Your task to perform on an android device: change timer sound Image 0: 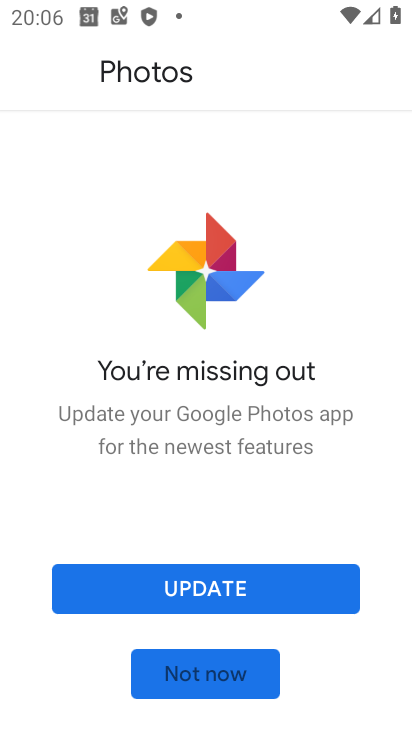
Step 0: press home button
Your task to perform on an android device: change timer sound Image 1: 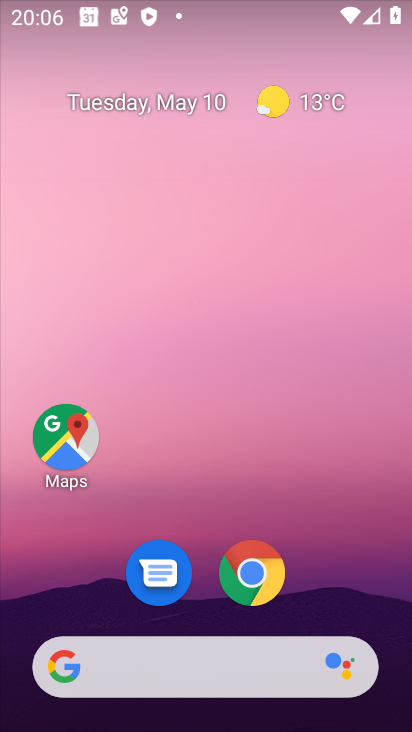
Step 1: drag from (352, 628) to (300, 2)
Your task to perform on an android device: change timer sound Image 2: 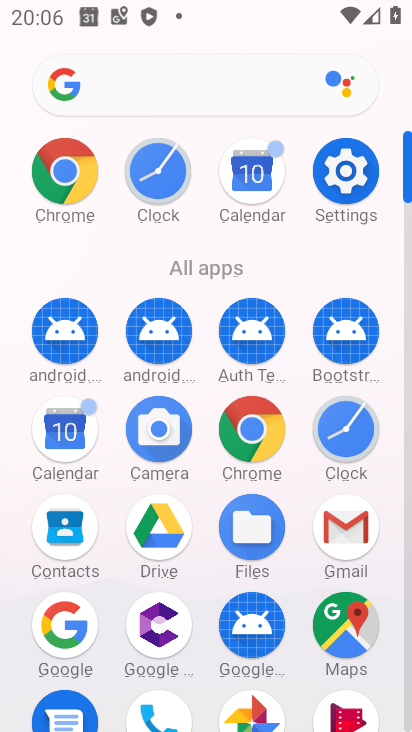
Step 2: click (149, 185)
Your task to perform on an android device: change timer sound Image 3: 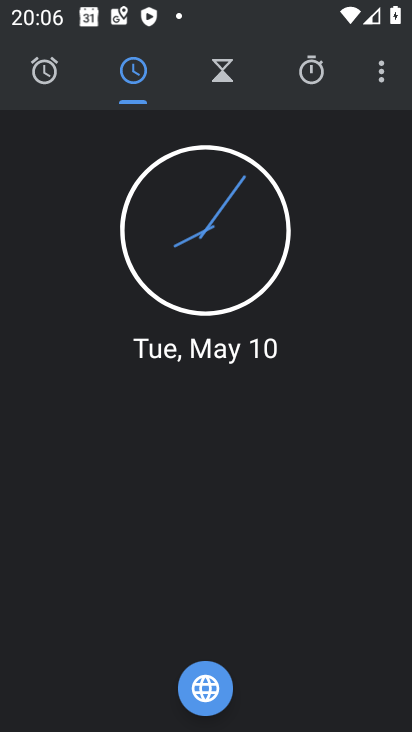
Step 3: click (388, 69)
Your task to perform on an android device: change timer sound Image 4: 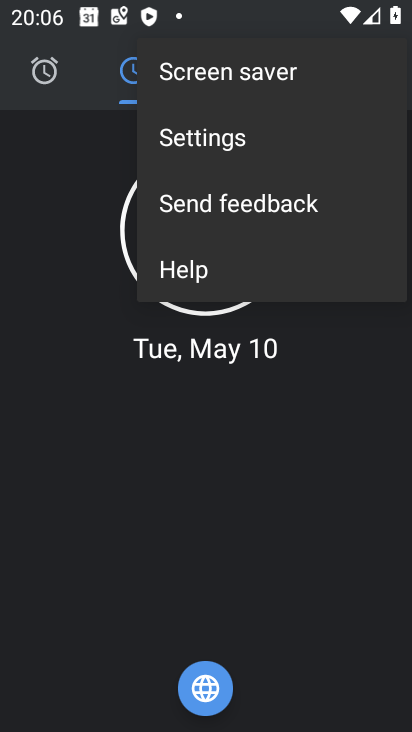
Step 4: click (218, 138)
Your task to perform on an android device: change timer sound Image 5: 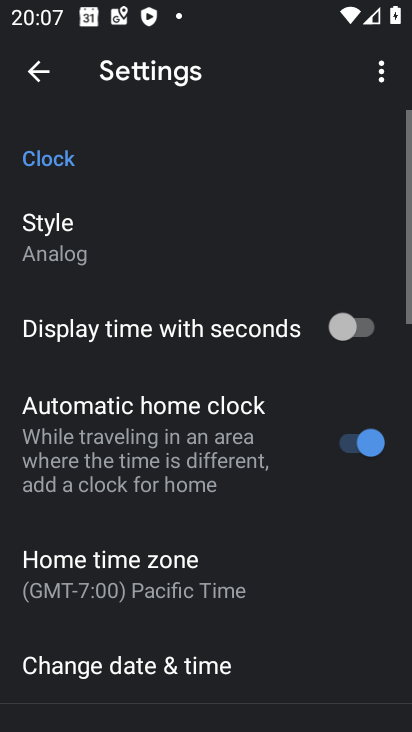
Step 5: drag from (106, 571) to (129, 151)
Your task to perform on an android device: change timer sound Image 6: 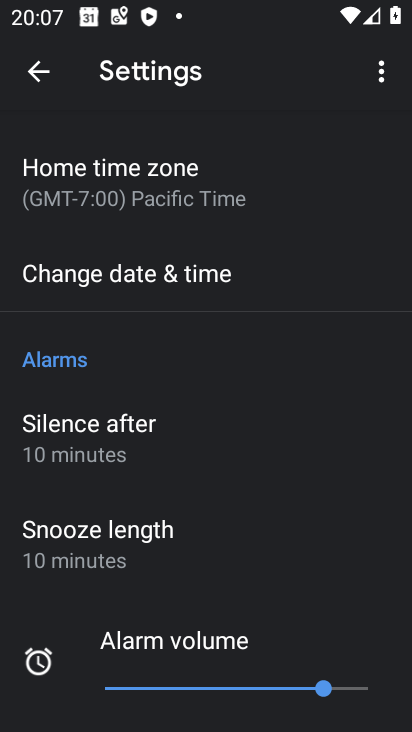
Step 6: drag from (101, 501) to (124, 203)
Your task to perform on an android device: change timer sound Image 7: 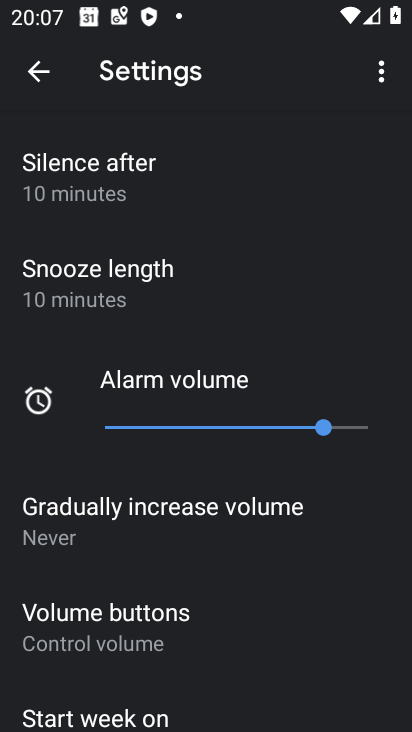
Step 7: drag from (153, 536) to (160, 235)
Your task to perform on an android device: change timer sound Image 8: 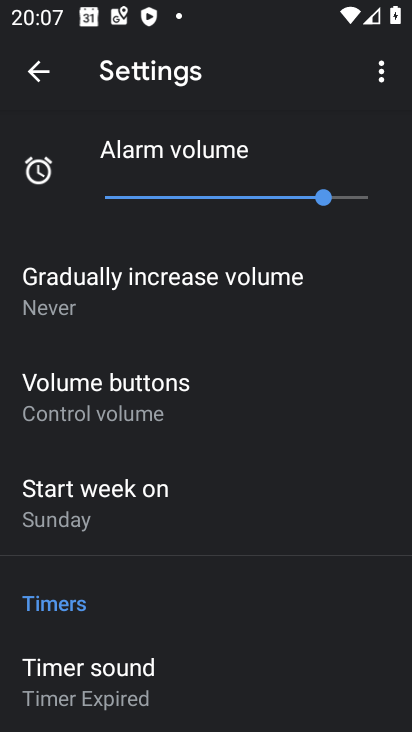
Step 8: drag from (124, 517) to (139, 317)
Your task to perform on an android device: change timer sound Image 9: 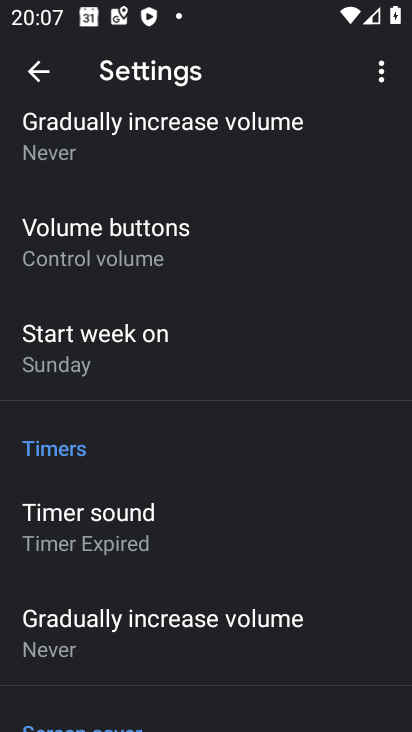
Step 9: click (94, 548)
Your task to perform on an android device: change timer sound Image 10: 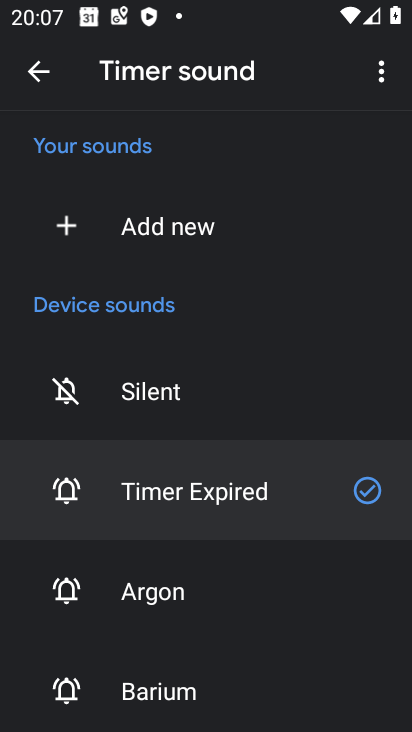
Step 10: click (119, 603)
Your task to perform on an android device: change timer sound Image 11: 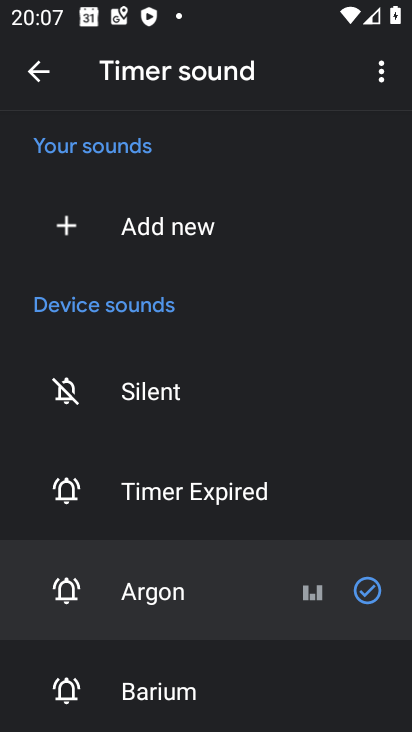
Step 11: task complete